Your task to perform on an android device: choose inbox layout in the gmail app Image 0: 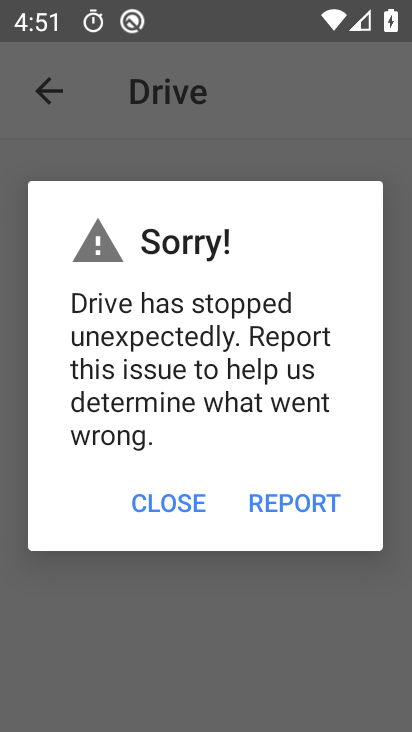
Step 0: click (182, 504)
Your task to perform on an android device: choose inbox layout in the gmail app Image 1: 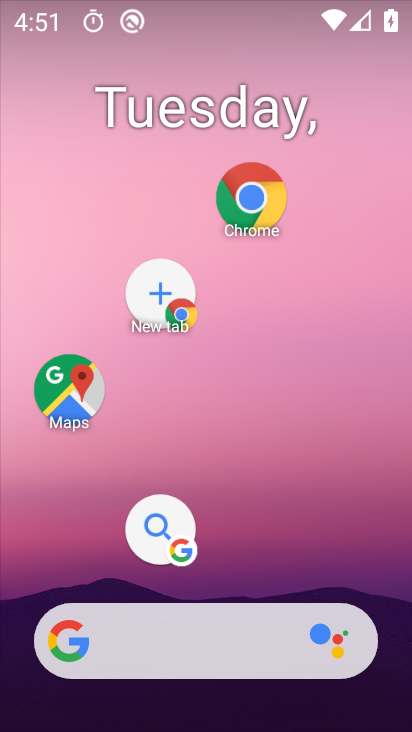
Step 1: drag from (250, 597) to (326, 379)
Your task to perform on an android device: choose inbox layout in the gmail app Image 2: 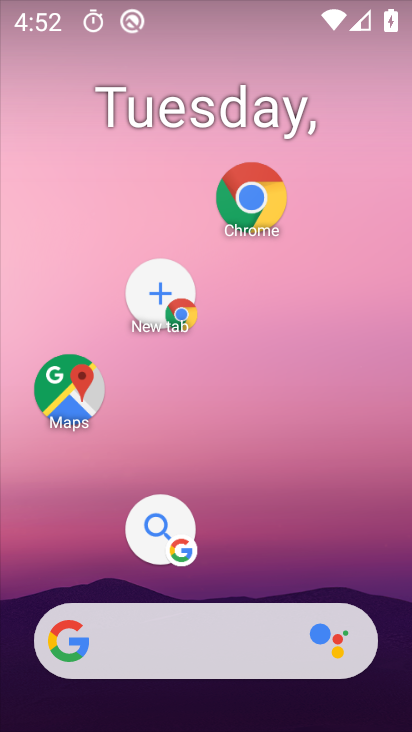
Step 2: drag from (222, 607) to (276, 340)
Your task to perform on an android device: choose inbox layout in the gmail app Image 3: 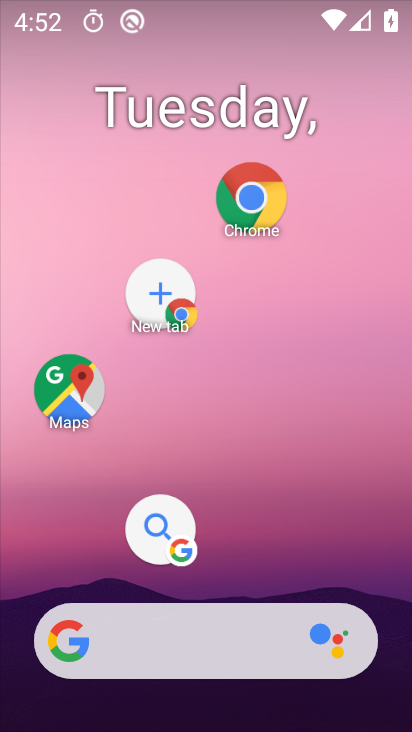
Step 3: drag from (223, 598) to (327, 234)
Your task to perform on an android device: choose inbox layout in the gmail app Image 4: 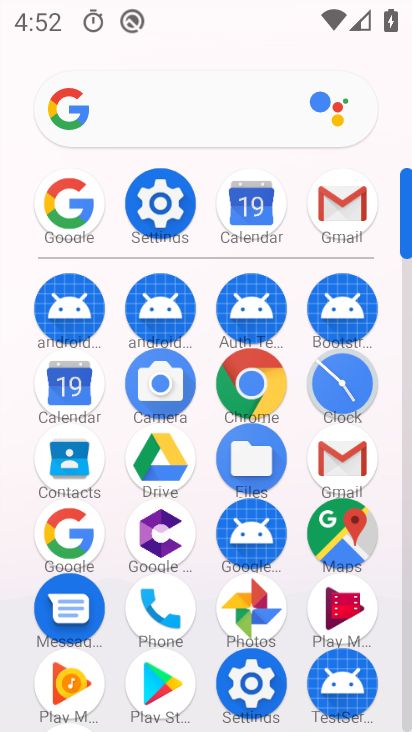
Step 4: click (351, 204)
Your task to perform on an android device: choose inbox layout in the gmail app Image 5: 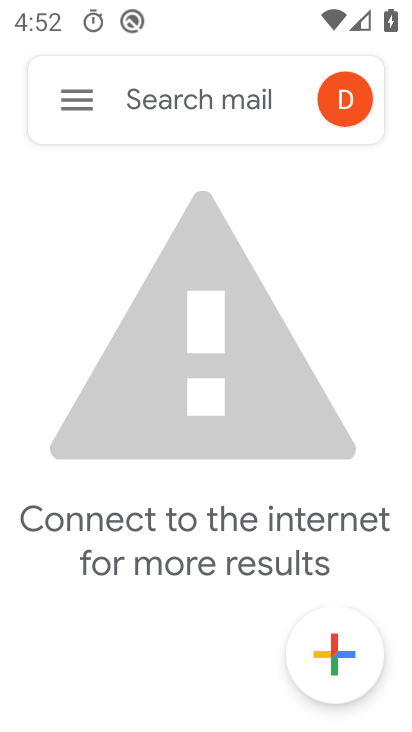
Step 5: click (90, 85)
Your task to perform on an android device: choose inbox layout in the gmail app Image 6: 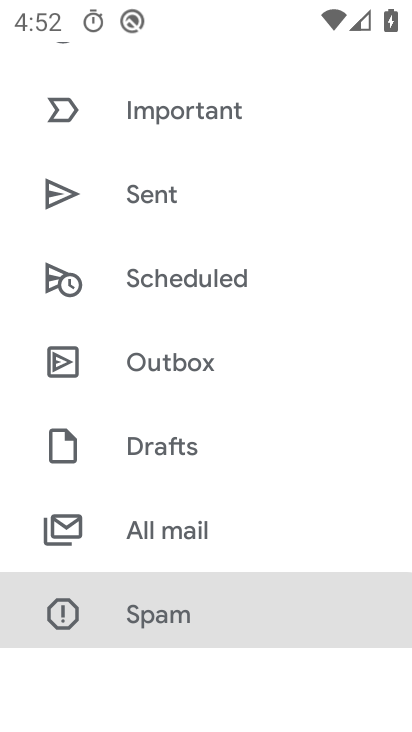
Step 6: drag from (205, 653) to (311, 314)
Your task to perform on an android device: choose inbox layout in the gmail app Image 7: 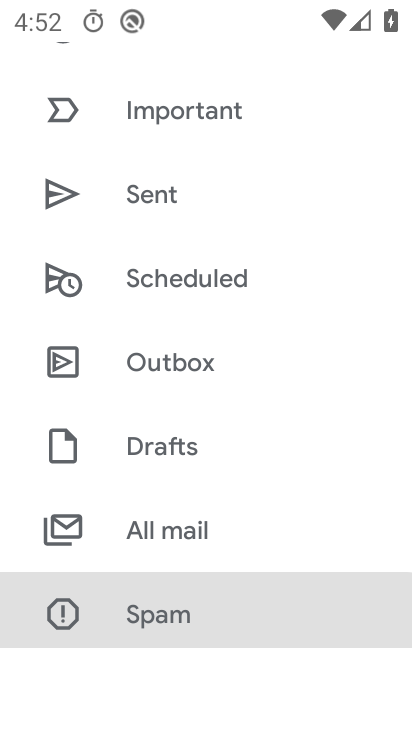
Step 7: drag from (198, 524) to (245, 336)
Your task to perform on an android device: choose inbox layout in the gmail app Image 8: 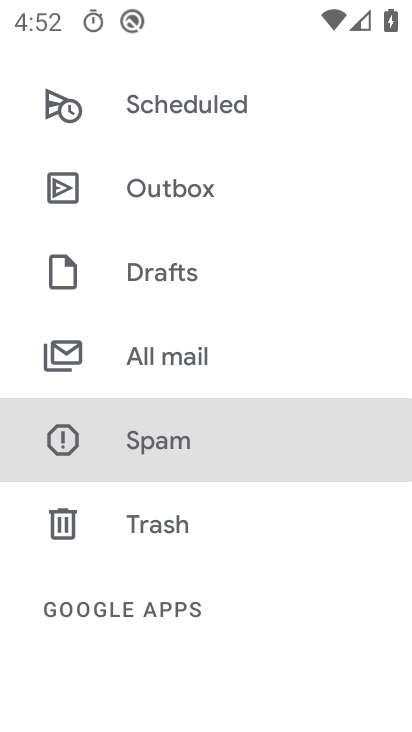
Step 8: drag from (191, 645) to (292, 346)
Your task to perform on an android device: choose inbox layout in the gmail app Image 9: 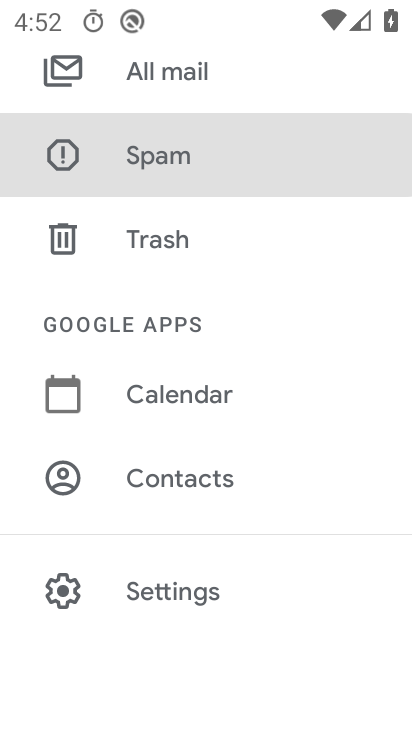
Step 9: click (188, 604)
Your task to perform on an android device: choose inbox layout in the gmail app Image 10: 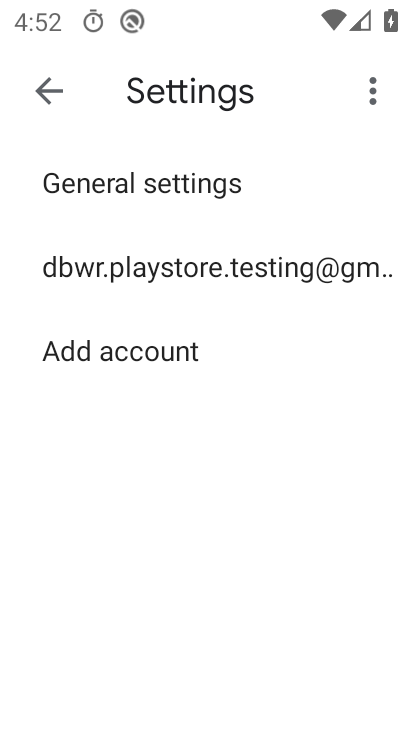
Step 10: click (239, 265)
Your task to perform on an android device: choose inbox layout in the gmail app Image 11: 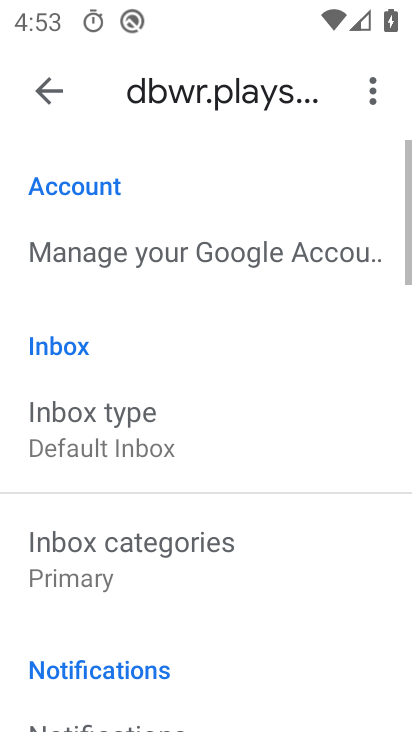
Step 11: click (121, 420)
Your task to perform on an android device: choose inbox layout in the gmail app Image 12: 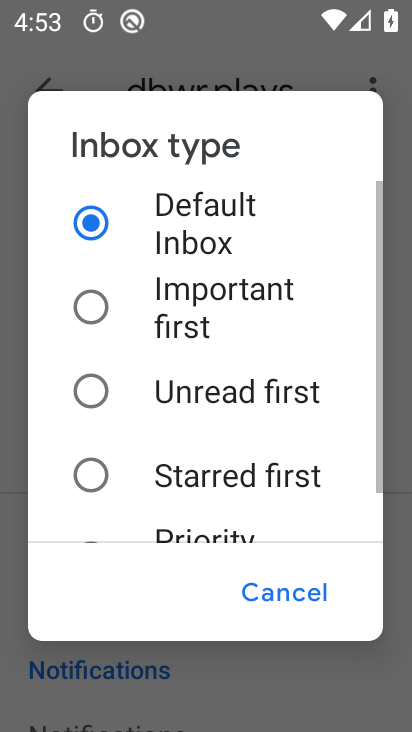
Step 12: drag from (194, 507) to (280, 248)
Your task to perform on an android device: choose inbox layout in the gmail app Image 13: 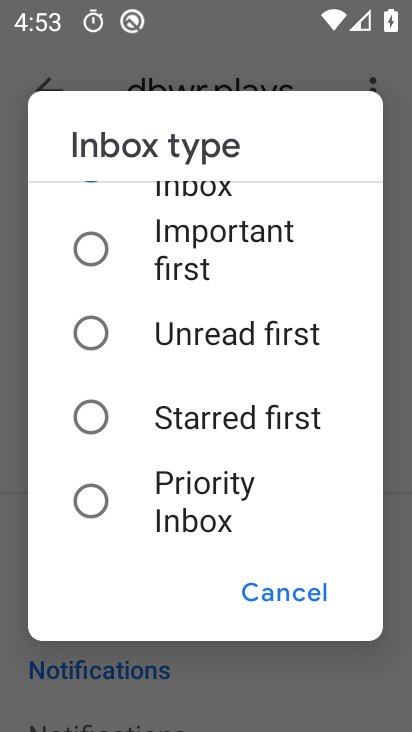
Step 13: click (86, 501)
Your task to perform on an android device: choose inbox layout in the gmail app Image 14: 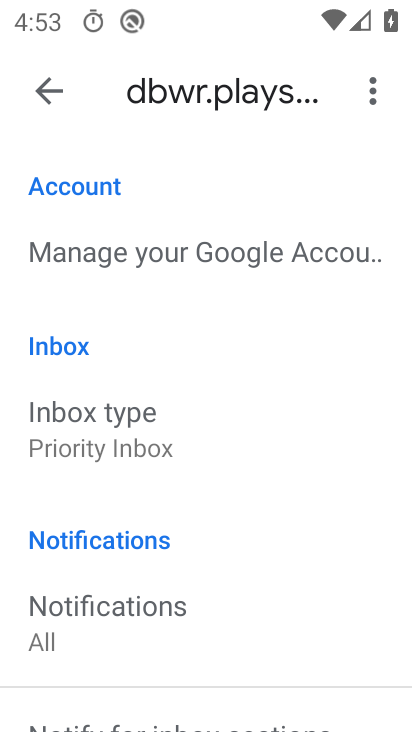
Step 14: task complete